Your task to perform on an android device: Search for duracell triple a on bestbuy, select the first entry, add it to the cart, then select checkout. Image 0: 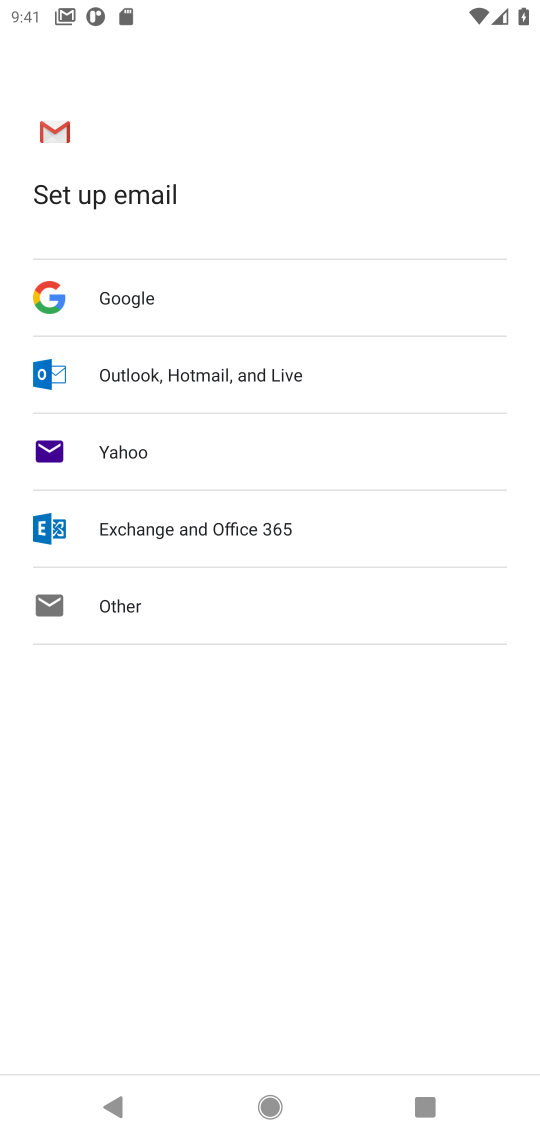
Step 0: press home button
Your task to perform on an android device: Search for duracell triple a on bestbuy, select the first entry, add it to the cart, then select checkout. Image 1: 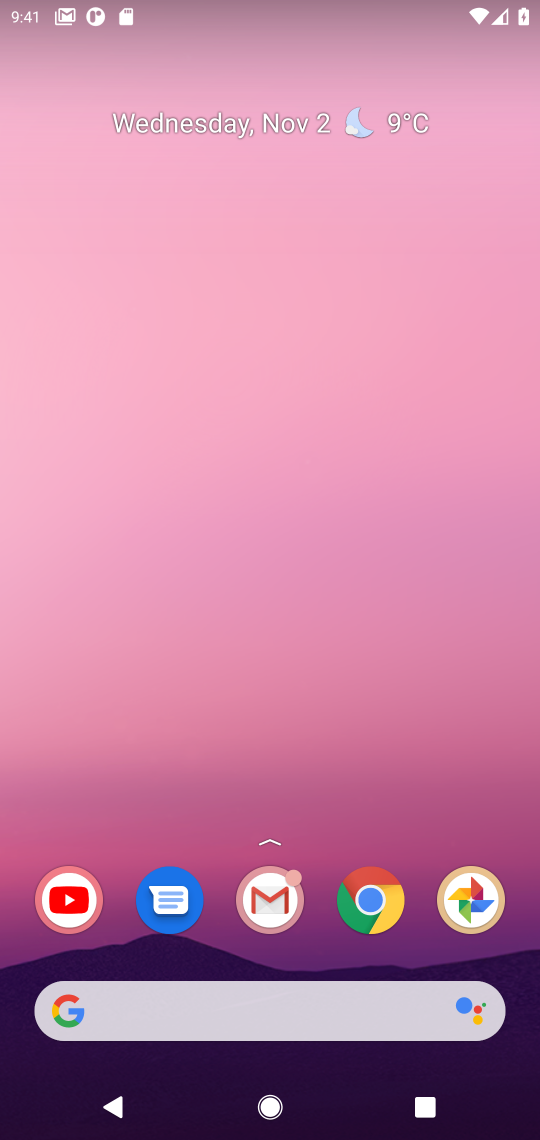
Step 1: click (377, 922)
Your task to perform on an android device: Search for duracell triple a on bestbuy, select the first entry, add it to the cart, then select checkout. Image 2: 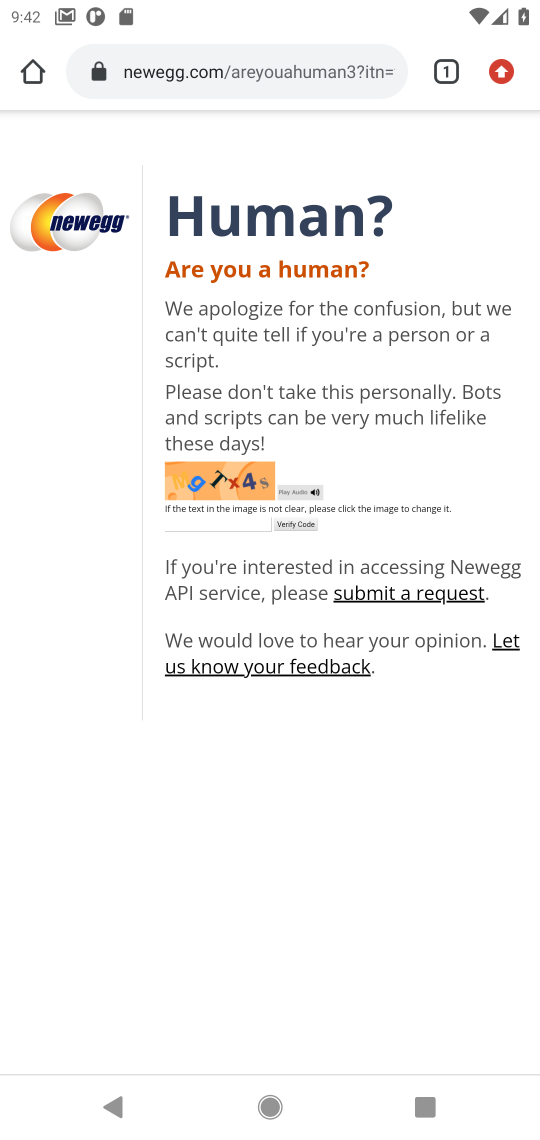
Step 2: click (260, 65)
Your task to perform on an android device: Search for duracell triple a on bestbuy, select the first entry, add it to the cart, then select checkout. Image 3: 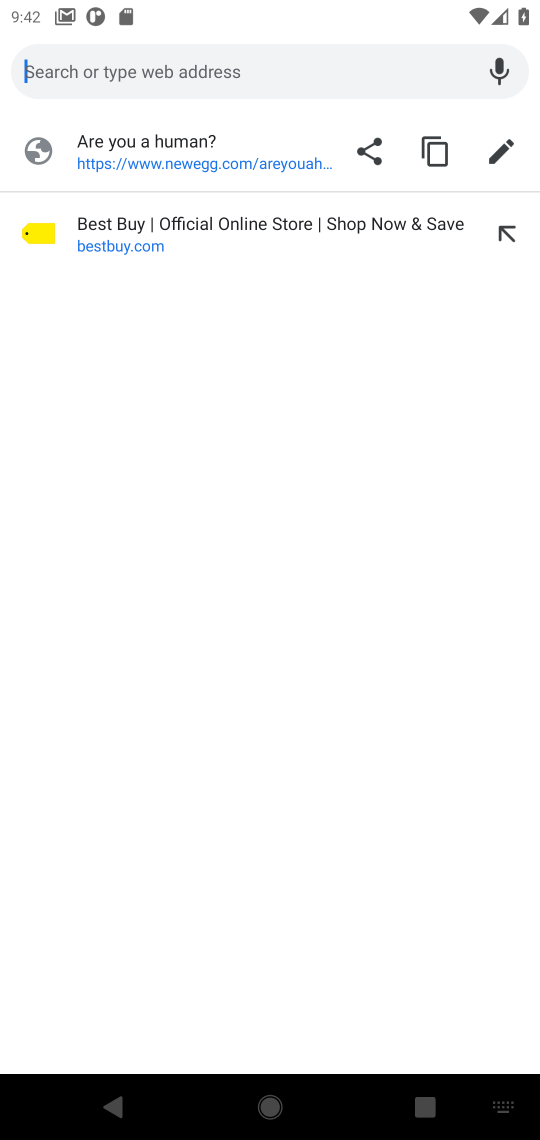
Step 3: click (209, 244)
Your task to perform on an android device: Search for duracell triple a on bestbuy, select the first entry, add it to the cart, then select checkout. Image 4: 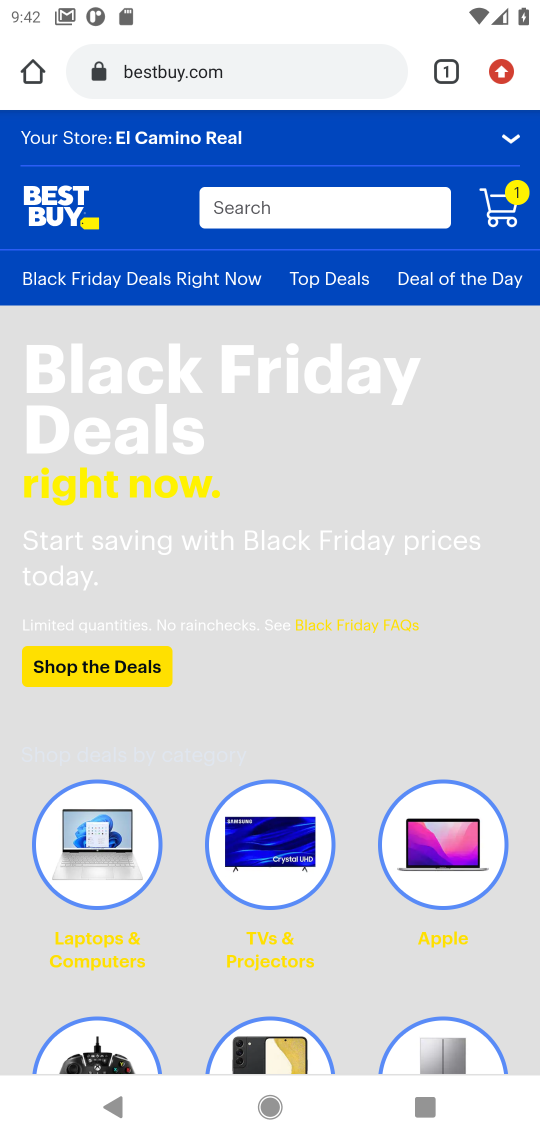
Step 4: click (232, 226)
Your task to perform on an android device: Search for duracell triple a on bestbuy, select the first entry, add it to the cart, then select checkout. Image 5: 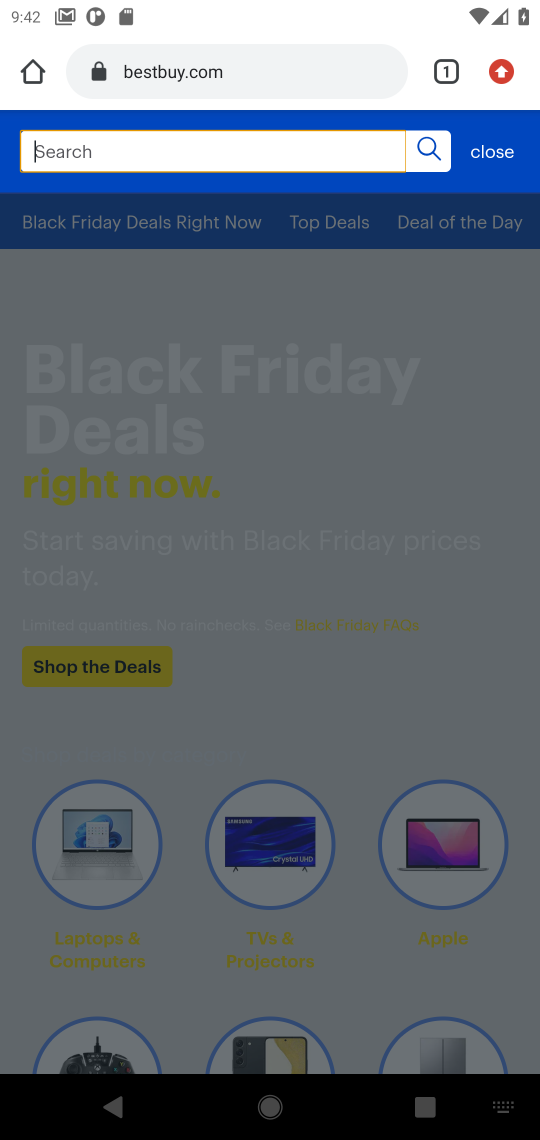
Step 5: type "duracell triple a"
Your task to perform on an android device: Search for duracell triple a on bestbuy, select the first entry, add it to the cart, then select checkout. Image 6: 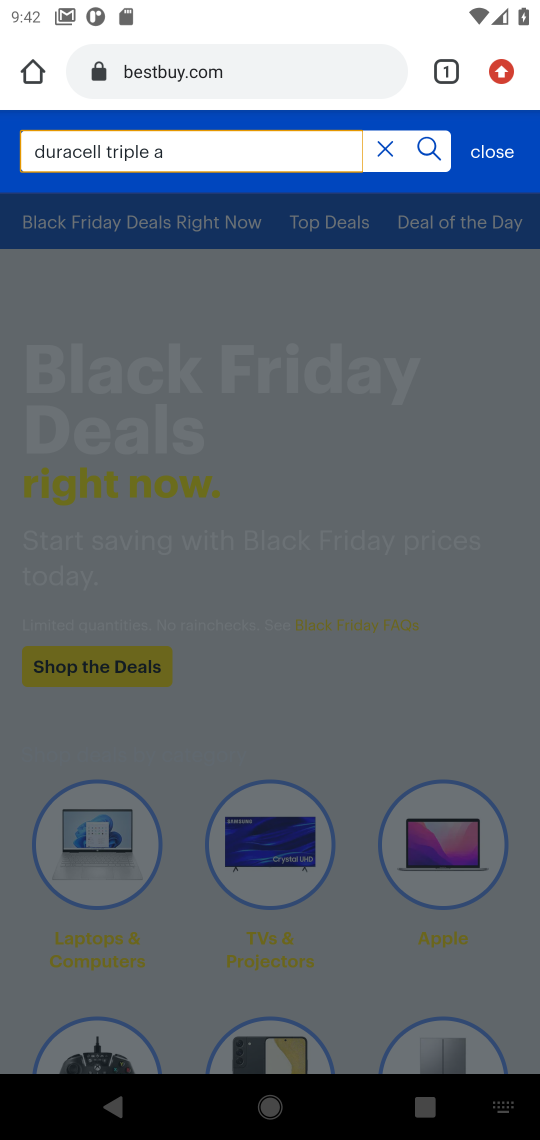
Step 6: click (439, 153)
Your task to perform on an android device: Search for duracell triple a on bestbuy, select the first entry, add it to the cart, then select checkout. Image 7: 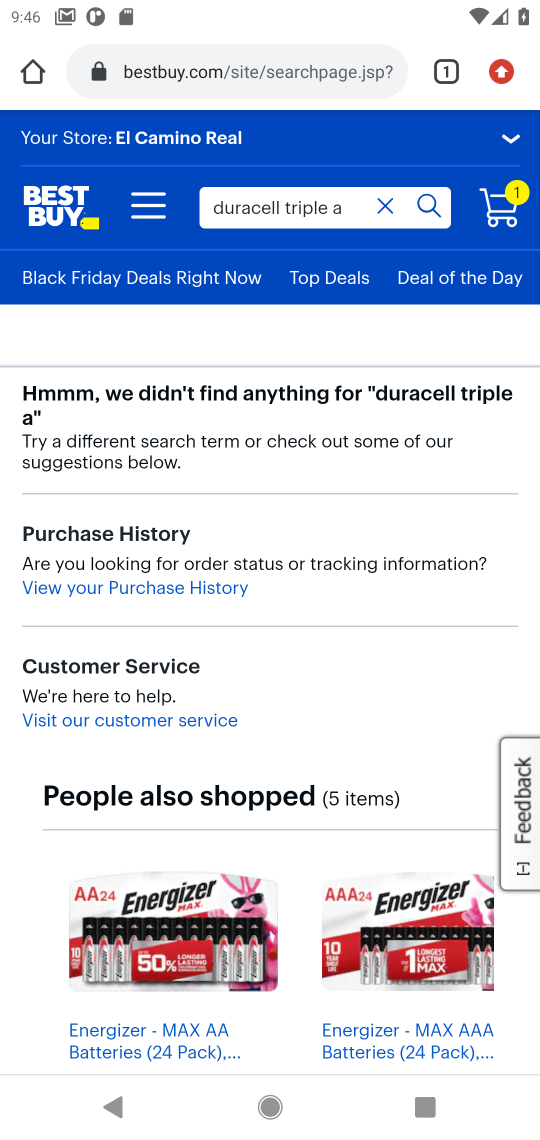
Step 7: task complete